Your task to perform on an android device: uninstall "Nova Launcher" Image 0: 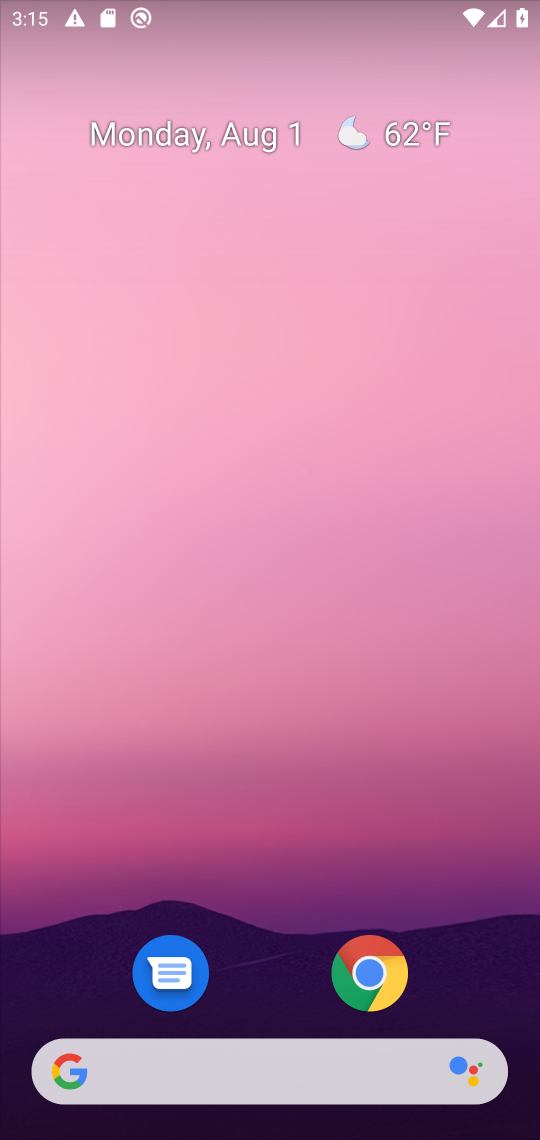
Step 0: drag from (235, 813) to (172, 381)
Your task to perform on an android device: uninstall "Nova Launcher" Image 1: 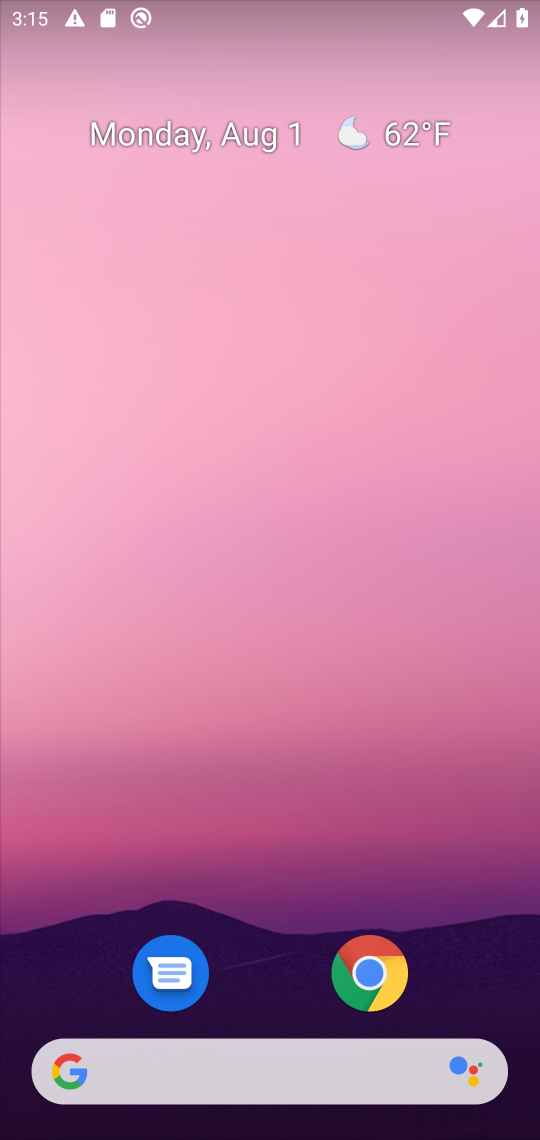
Step 1: drag from (237, 895) to (240, 322)
Your task to perform on an android device: uninstall "Nova Launcher" Image 2: 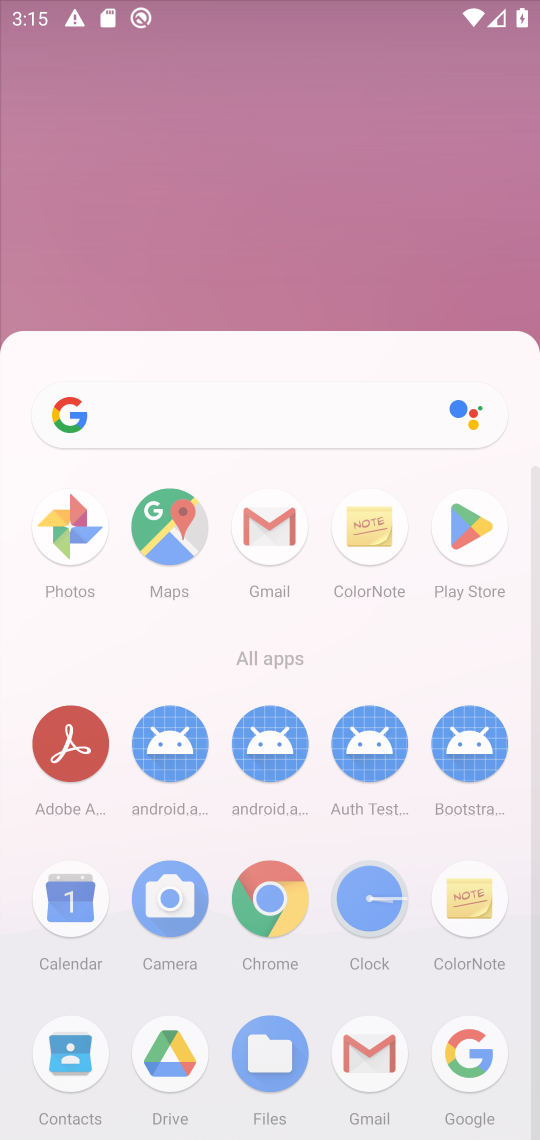
Step 2: drag from (276, 608) to (248, 427)
Your task to perform on an android device: uninstall "Nova Launcher" Image 3: 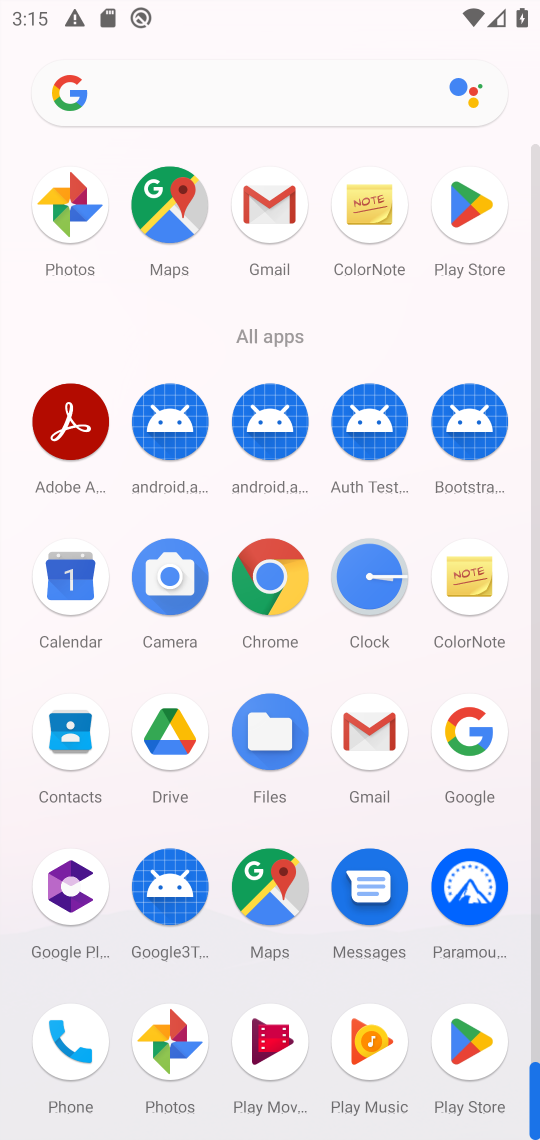
Step 3: click (478, 223)
Your task to perform on an android device: uninstall "Nova Launcher" Image 4: 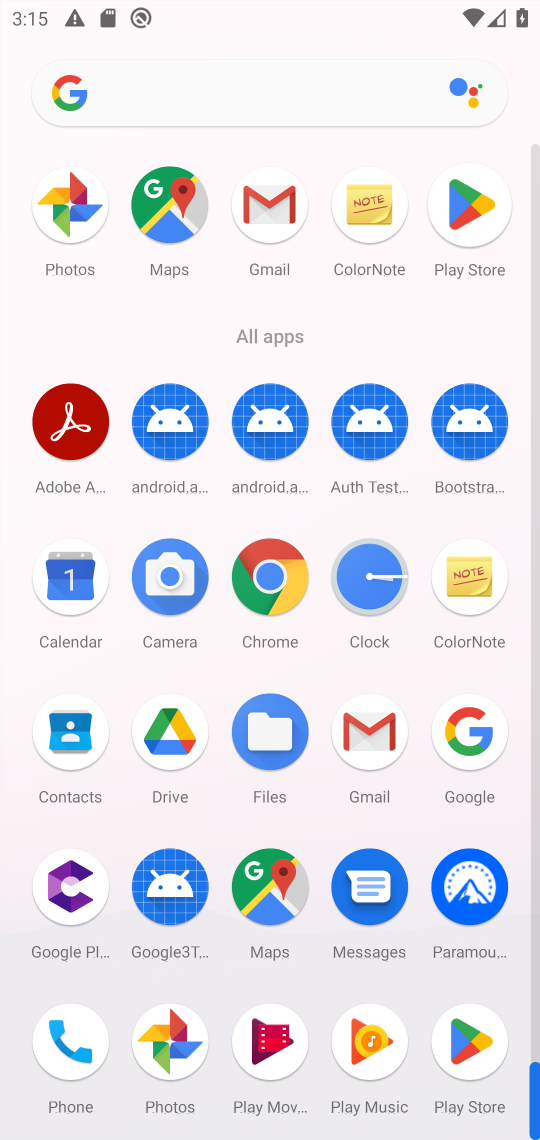
Step 4: click (468, 215)
Your task to perform on an android device: uninstall "Nova Launcher" Image 5: 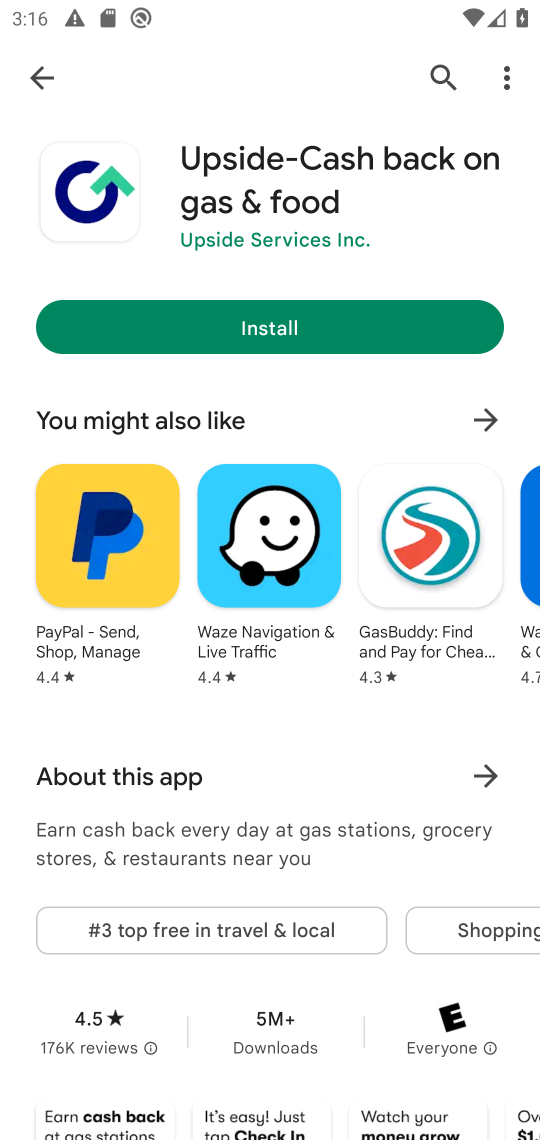
Step 5: click (40, 59)
Your task to perform on an android device: uninstall "Nova Launcher" Image 6: 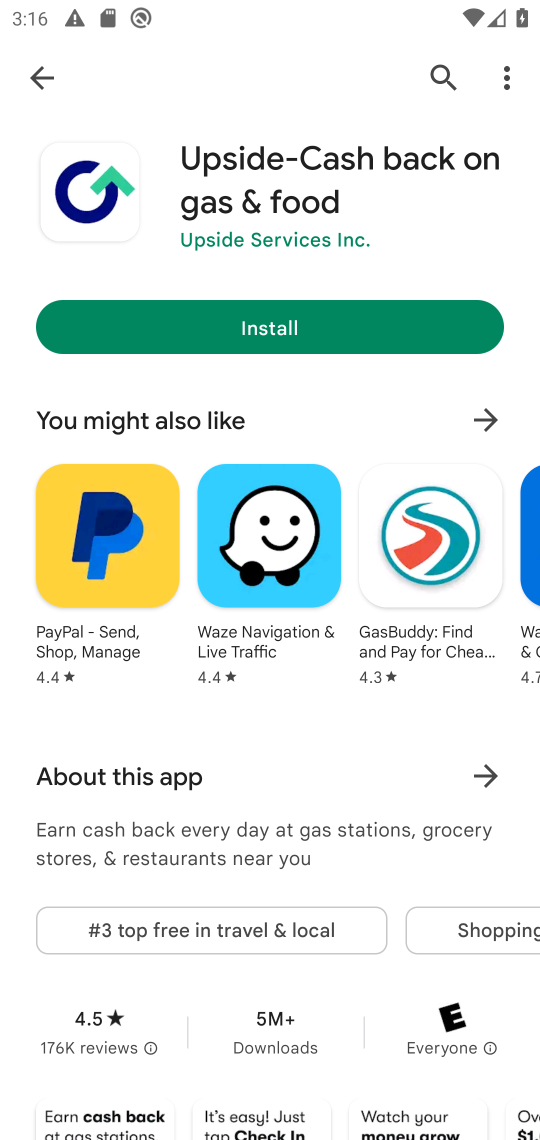
Step 6: click (43, 66)
Your task to perform on an android device: uninstall "Nova Launcher" Image 7: 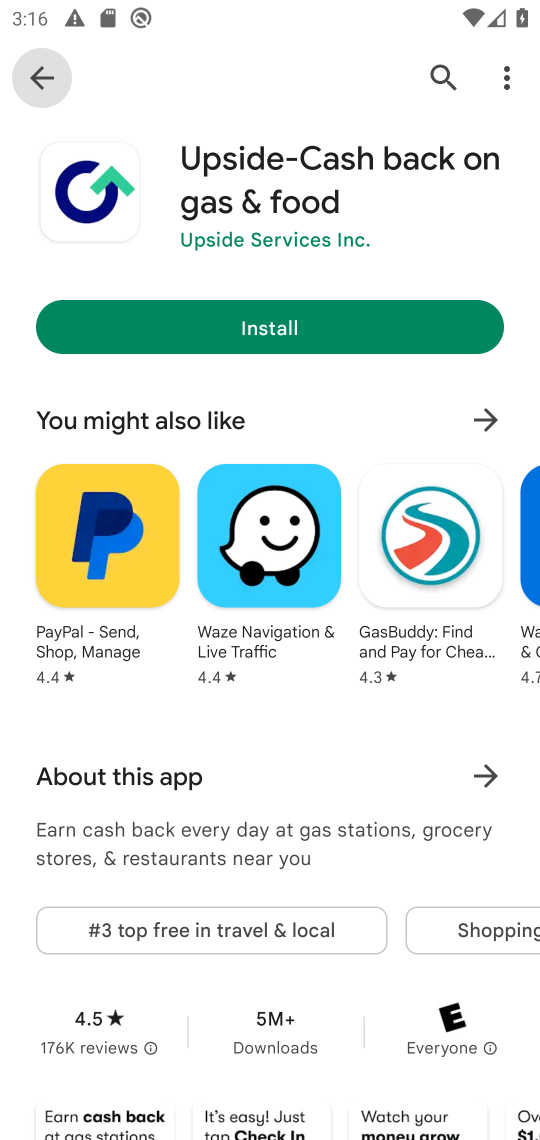
Step 7: click (43, 66)
Your task to perform on an android device: uninstall "Nova Launcher" Image 8: 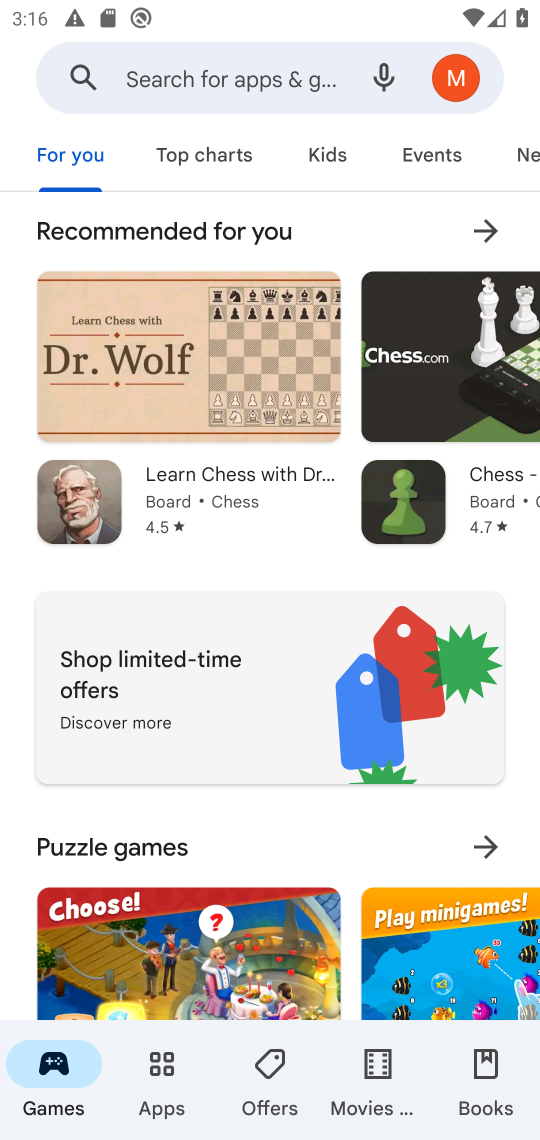
Step 8: click (142, 77)
Your task to perform on an android device: uninstall "Nova Launcher" Image 9: 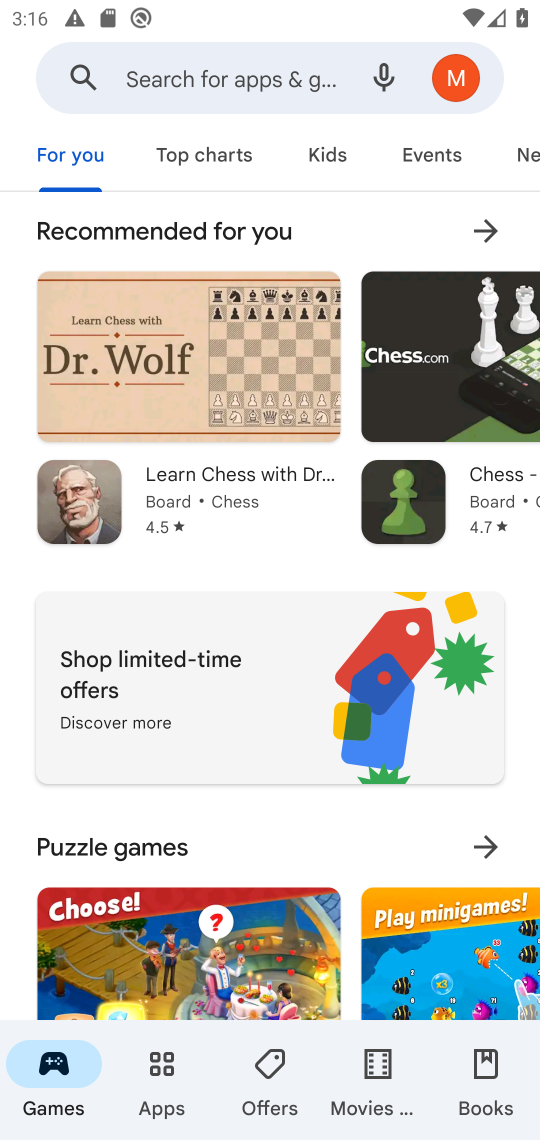
Step 9: click (144, 75)
Your task to perform on an android device: uninstall "Nova Launcher" Image 10: 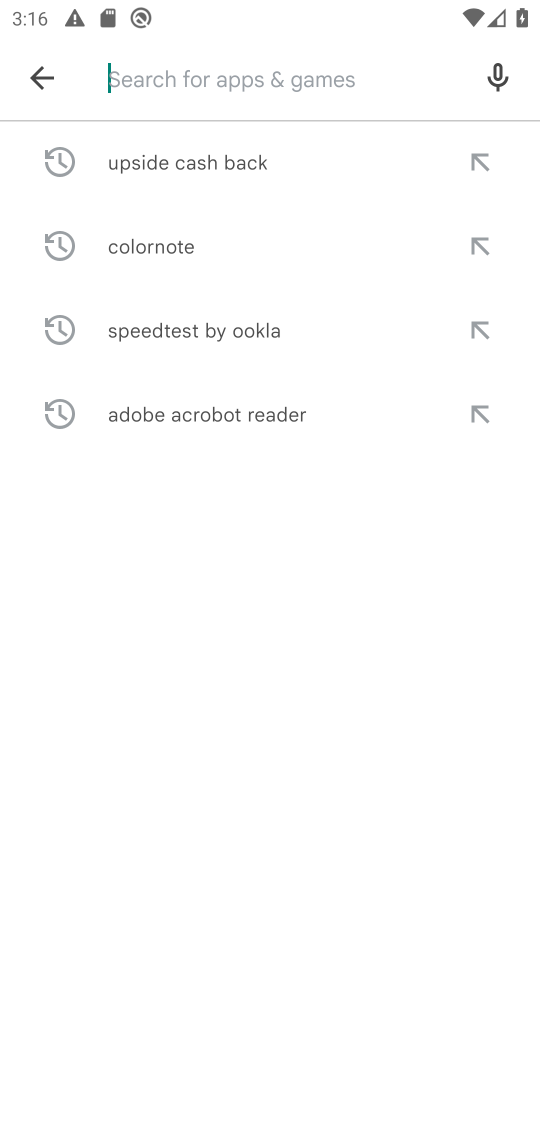
Step 10: click (144, 73)
Your task to perform on an android device: uninstall "Nova Launcher" Image 11: 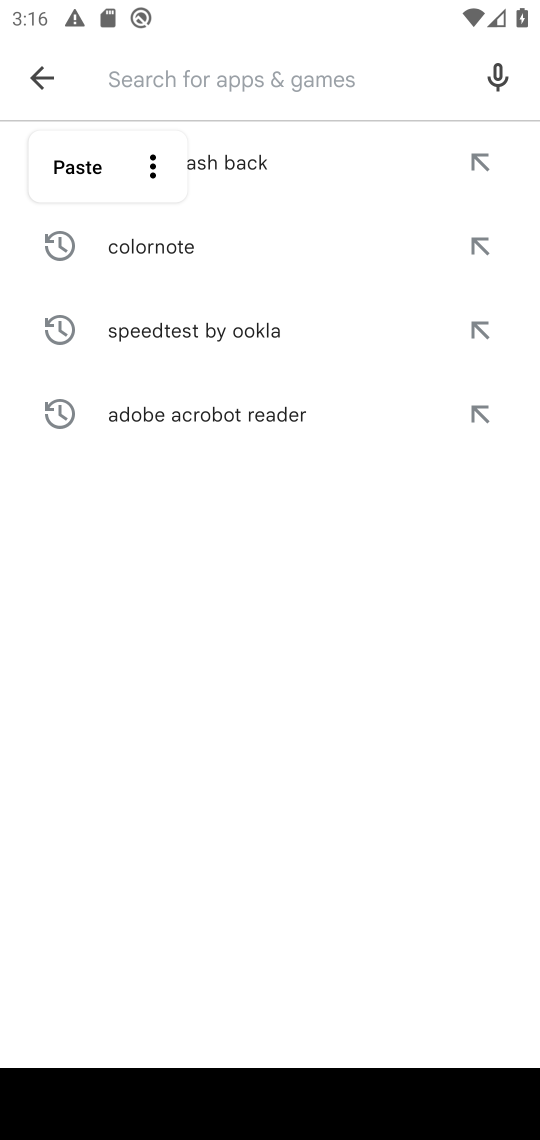
Step 11: type "Nova launcher"
Your task to perform on an android device: uninstall "Nova Launcher" Image 12: 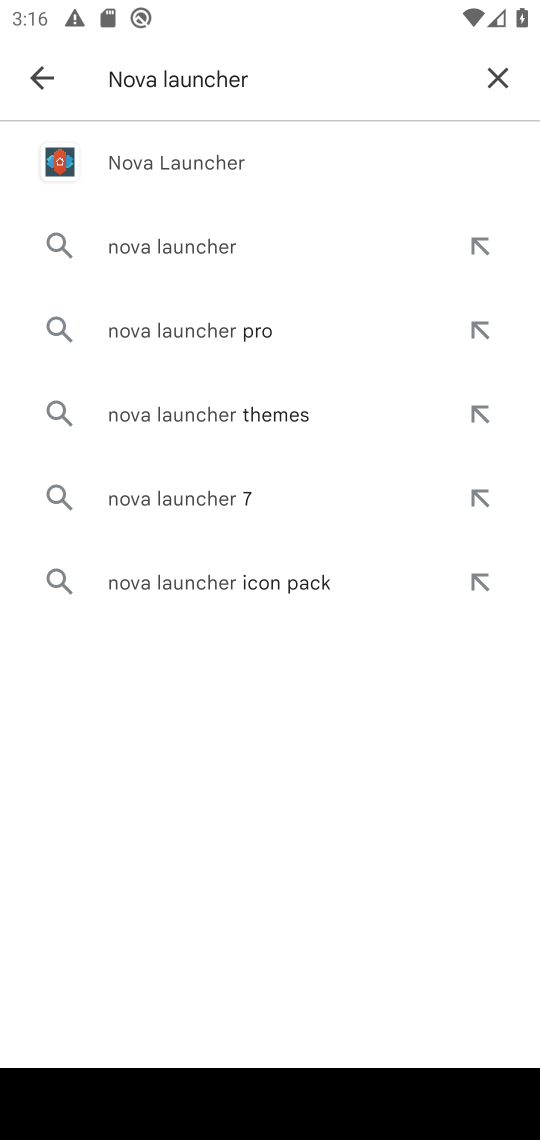
Step 12: click (131, 143)
Your task to perform on an android device: uninstall "Nova Launcher" Image 13: 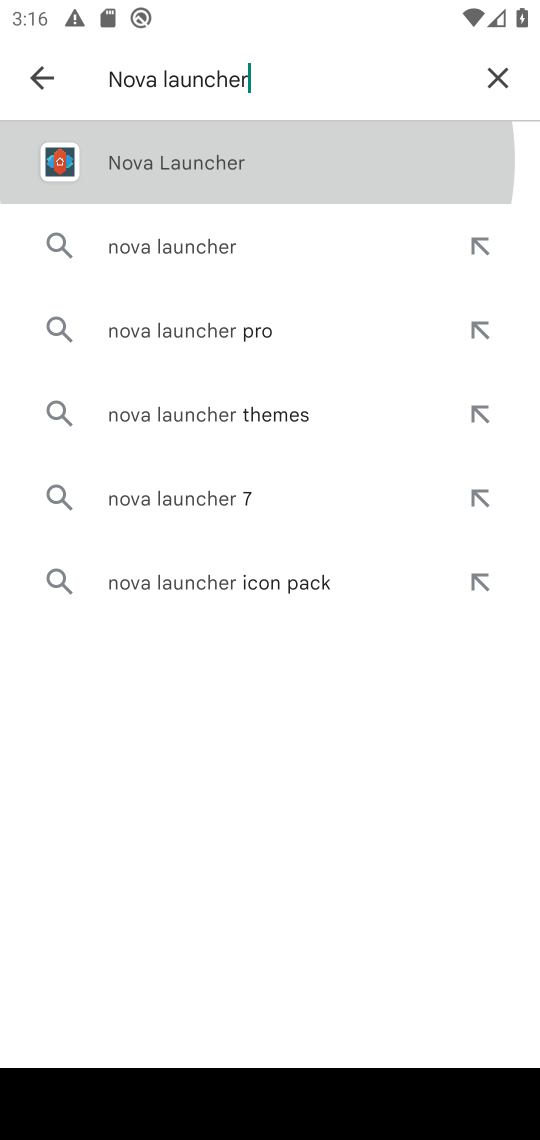
Step 13: click (138, 149)
Your task to perform on an android device: uninstall "Nova Launcher" Image 14: 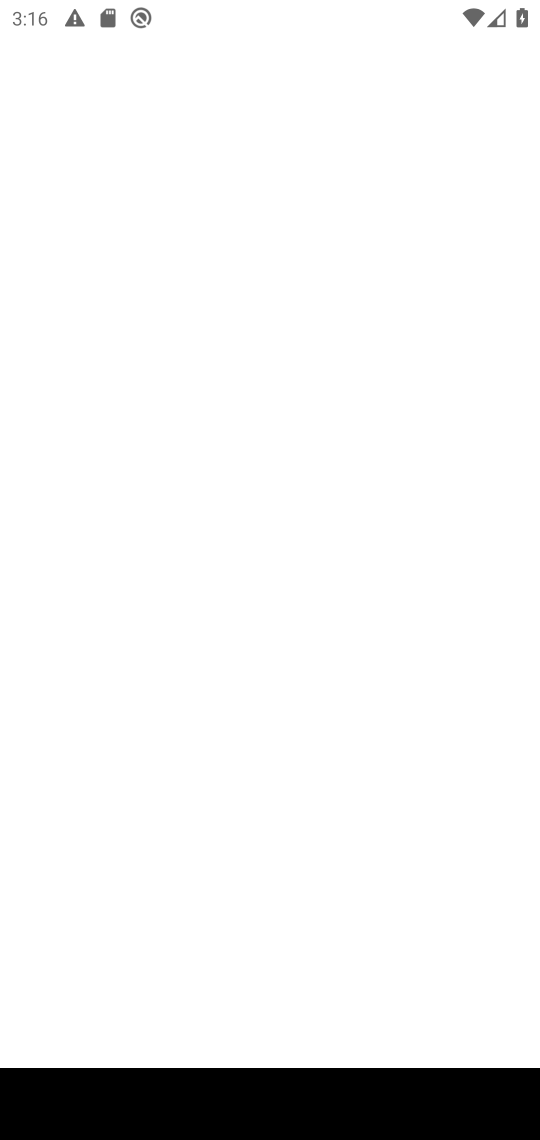
Step 14: click (140, 147)
Your task to perform on an android device: uninstall "Nova Launcher" Image 15: 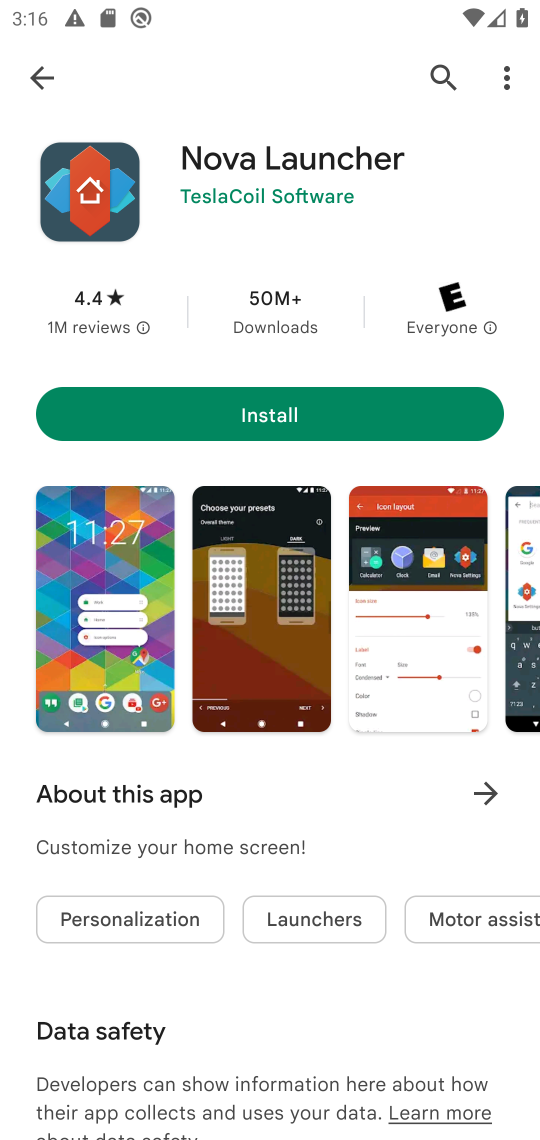
Step 15: click (285, 395)
Your task to perform on an android device: uninstall "Nova Launcher" Image 16: 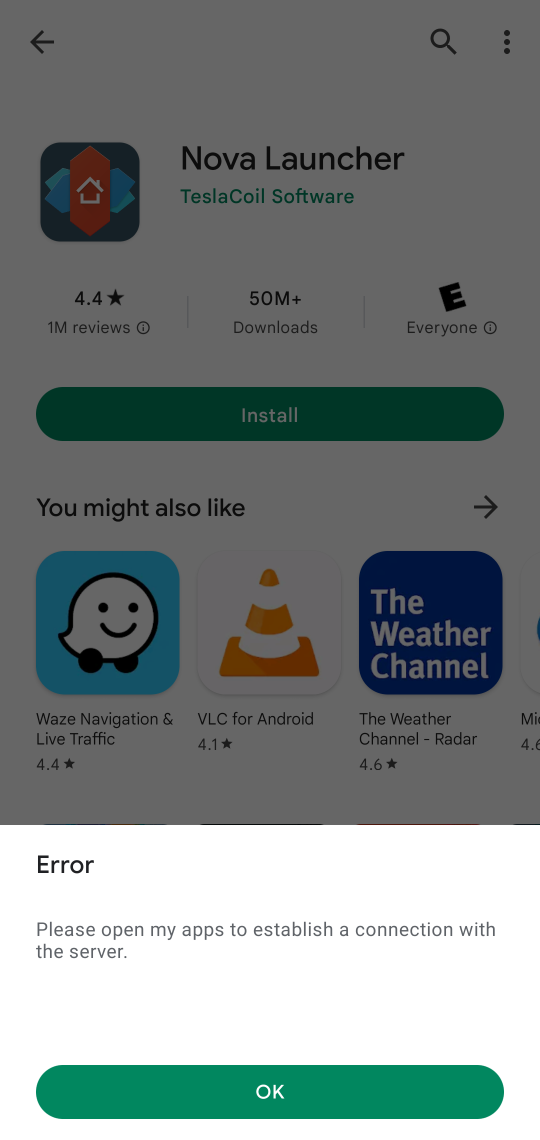
Step 16: click (261, 1091)
Your task to perform on an android device: uninstall "Nova Launcher" Image 17: 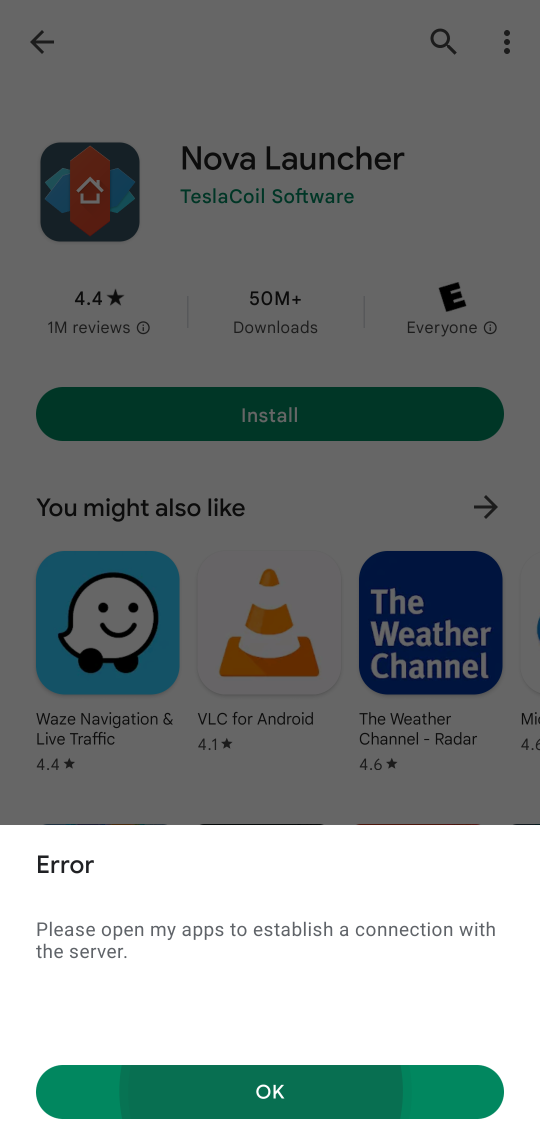
Step 17: click (261, 1091)
Your task to perform on an android device: uninstall "Nova Launcher" Image 18: 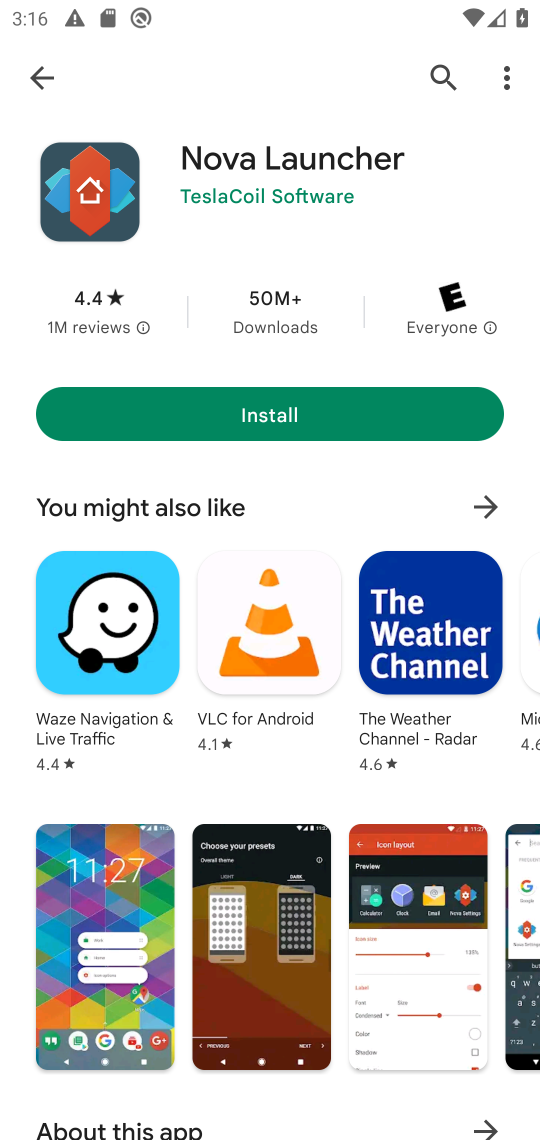
Step 18: task complete